Your task to perform on an android device: search for starred emails in the gmail app Image 0: 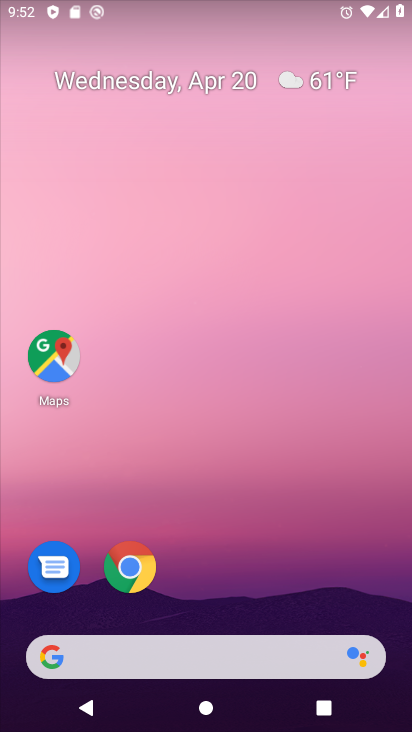
Step 0: drag from (239, 469) to (314, 45)
Your task to perform on an android device: search for starred emails in the gmail app Image 1: 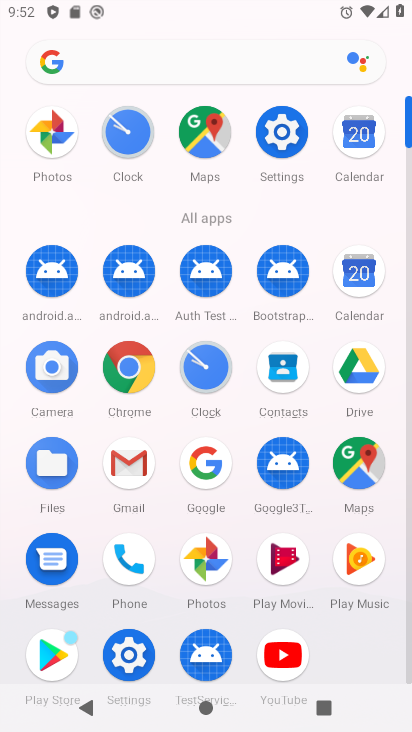
Step 1: click (128, 455)
Your task to perform on an android device: search for starred emails in the gmail app Image 2: 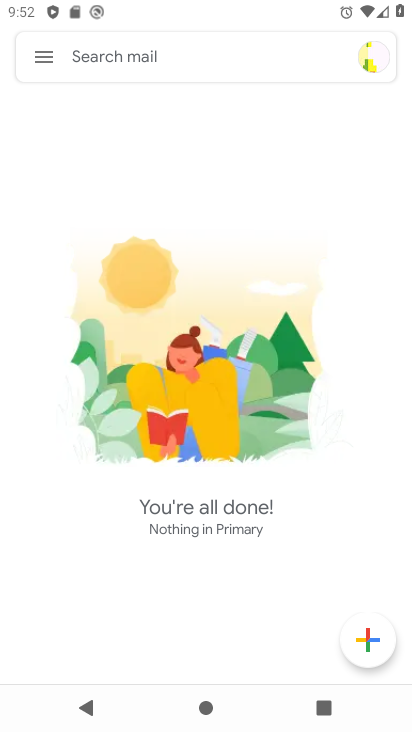
Step 2: click (42, 51)
Your task to perform on an android device: search for starred emails in the gmail app Image 3: 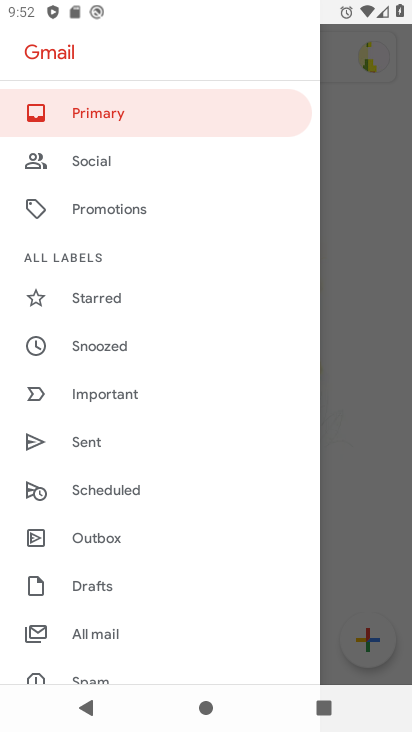
Step 3: click (101, 303)
Your task to perform on an android device: search for starred emails in the gmail app Image 4: 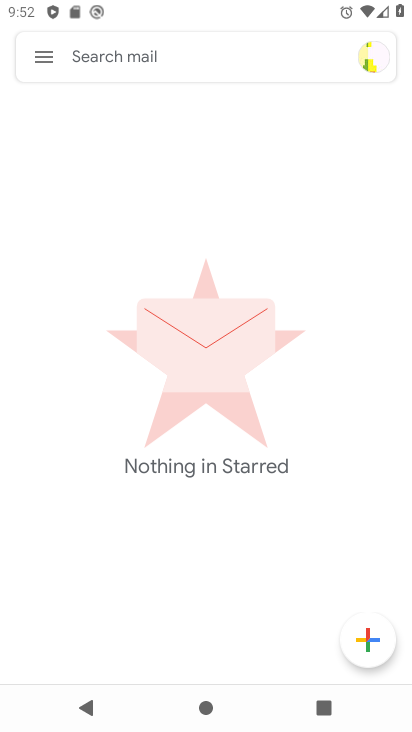
Step 4: task complete